Your task to perform on an android device: open wifi settings Image 0: 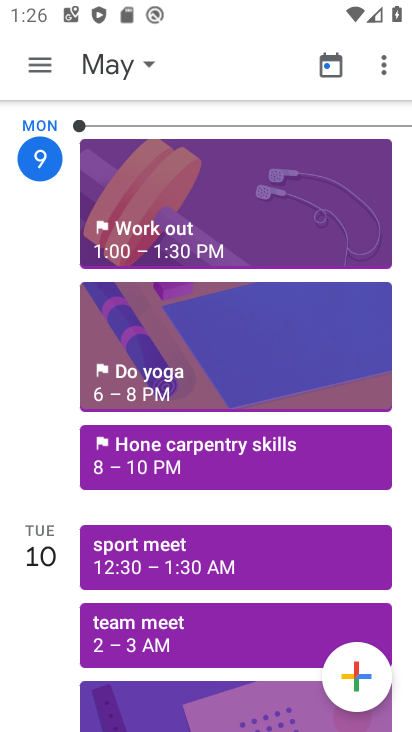
Step 0: drag from (216, 484) to (230, 133)
Your task to perform on an android device: open wifi settings Image 1: 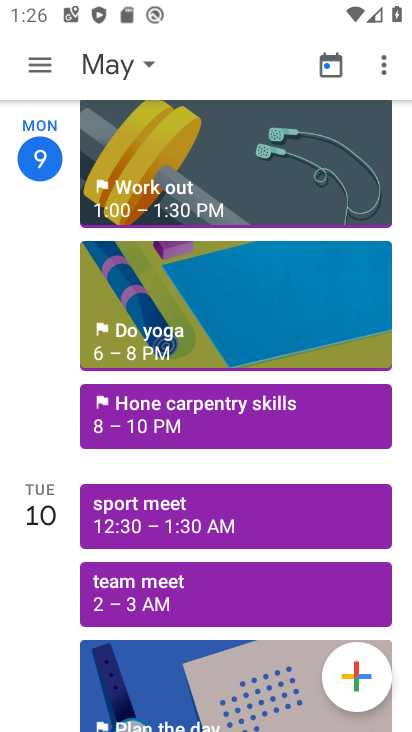
Step 1: press home button
Your task to perform on an android device: open wifi settings Image 2: 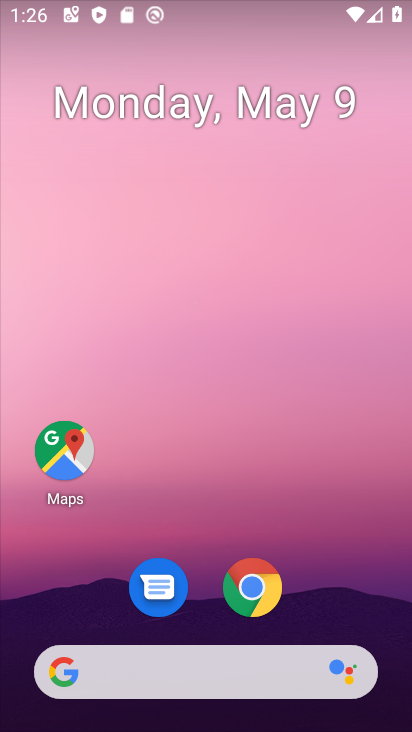
Step 2: drag from (183, 646) to (197, 301)
Your task to perform on an android device: open wifi settings Image 3: 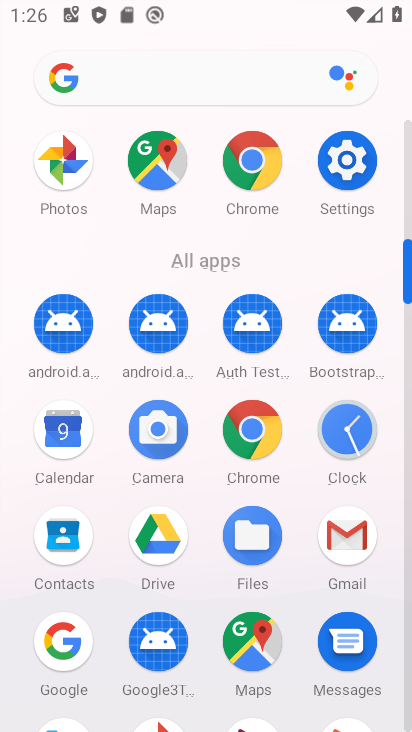
Step 3: drag from (181, 625) to (205, 530)
Your task to perform on an android device: open wifi settings Image 4: 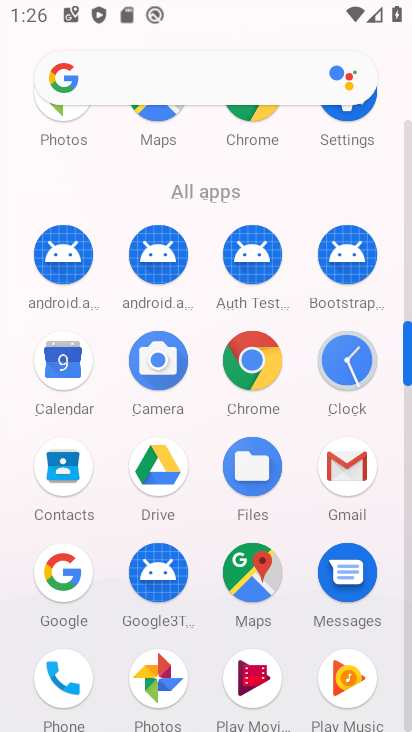
Step 4: drag from (156, 592) to (214, 383)
Your task to perform on an android device: open wifi settings Image 5: 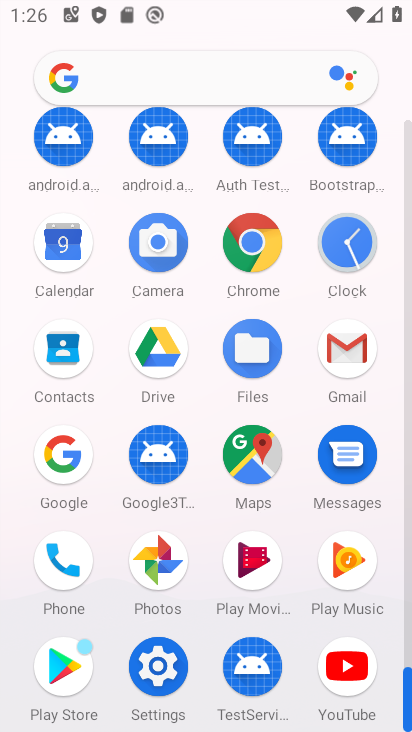
Step 5: click (165, 656)
Your task to perform on an android device: open wifi settings Image 6: 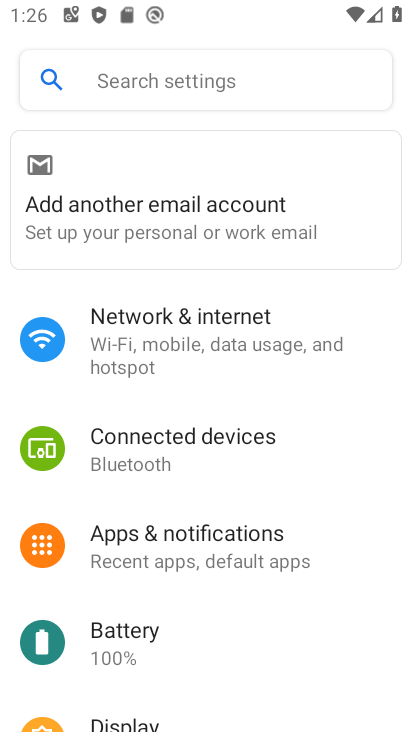
Step 6: click (258, 333)
Your task to perform on an android device: open wifi settings Image 7: 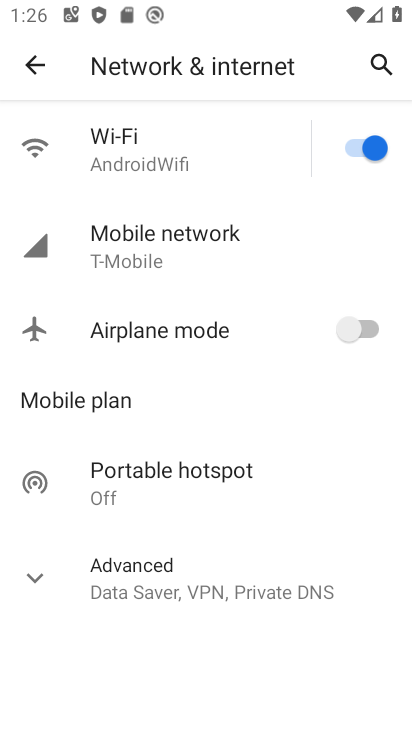
Step 7: click (238, 165)
Your task to perform on an android device: open wifi settings Image 8: 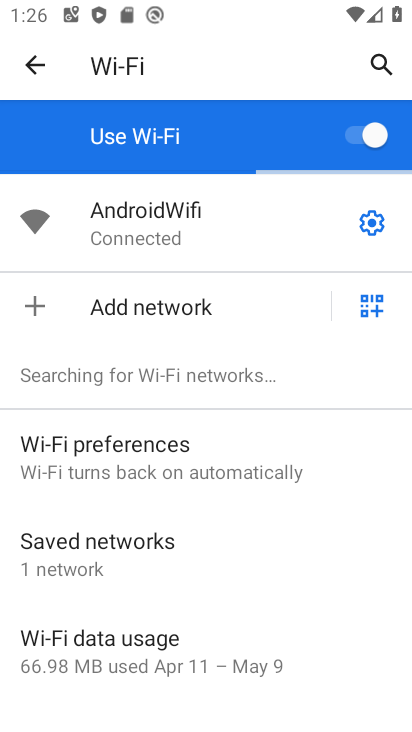
Step 8: task complete